Your task to perform on an android device: Open the phone app and click the voicemail tab. Image 0: 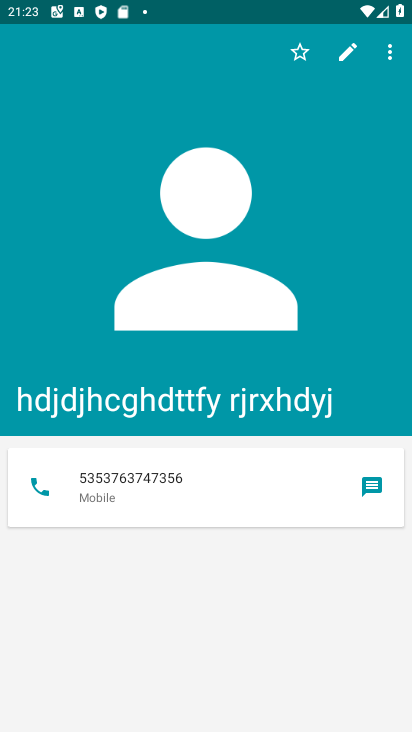
Step 0: press home button
Your task to perform on an android device: Open the phone app and click the voicemail tab. Image 1: 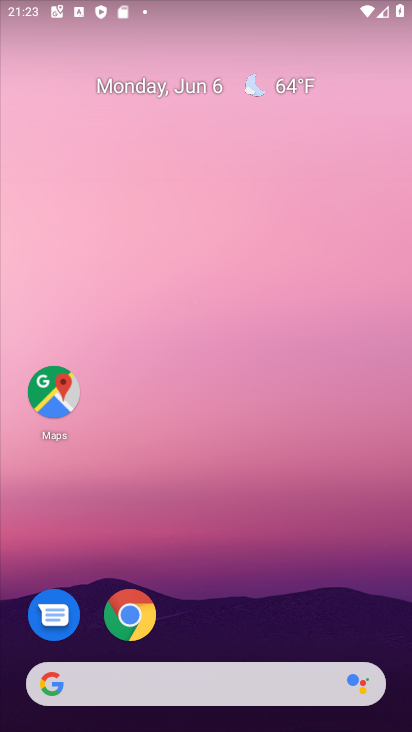
Step 1: drag from (387, 712) to (326, 131)
Your task to perform on an android device: Open the phone app and click the voicemail tab. Image 2: 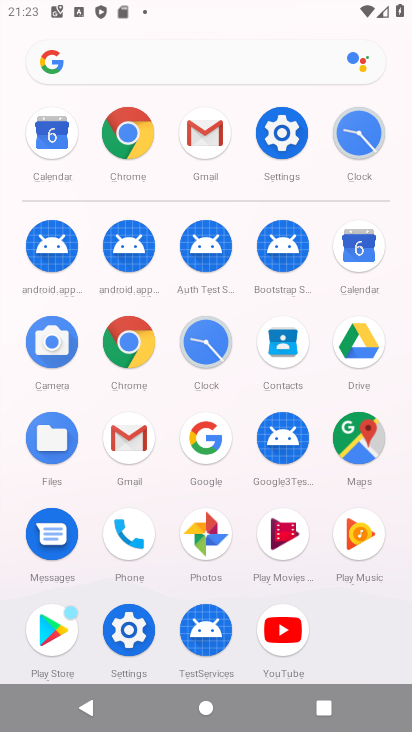
Step 2: click (128, 534)
Your task to perform on an android device: Open the phone app and click the voicemail tab. Image 3: 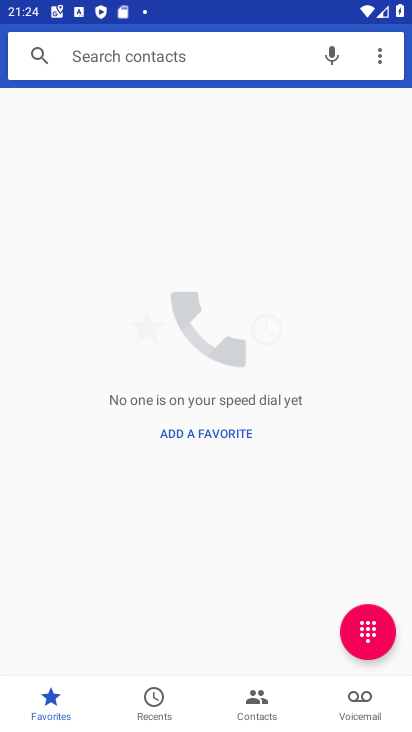
Step 3: click (367, 705)
Your task to perform on an android device: Open the phone app and click the voicemail tab. Image 4: 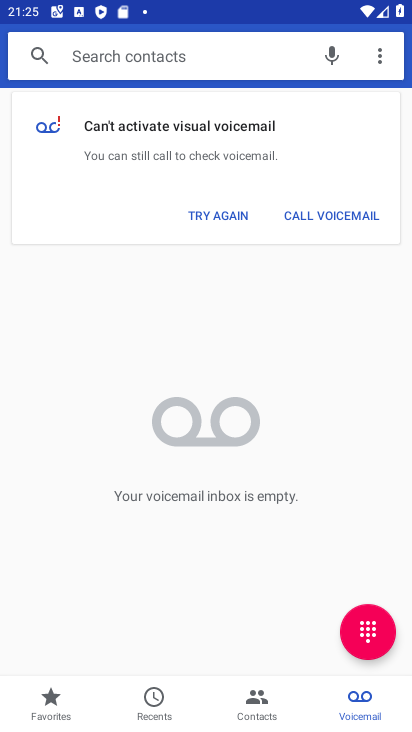
Step 4: task complete